Your task to perform on an android device: turn off sleep mode Image 0: 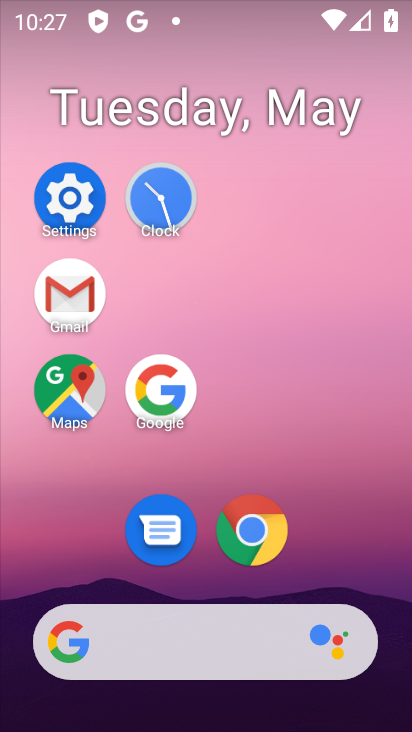
Step 0: click (91, 203)
Your task to perform on an android device: turn off sleep mode Image 1: 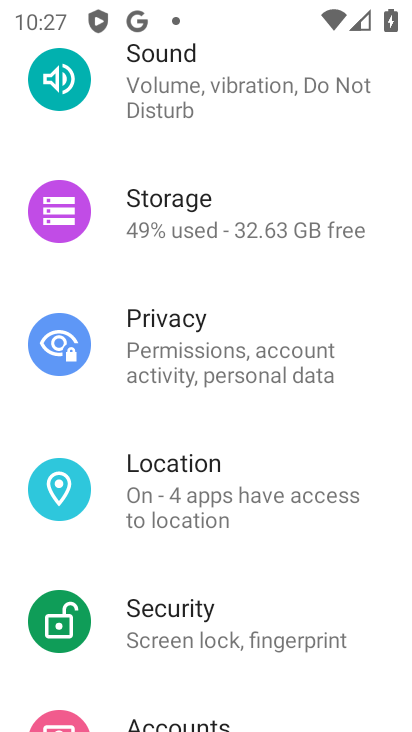
Step 1: drag from (269, 156) to (354, 549)
Your task to perform on an android device: turn off sleep mode Image 2: 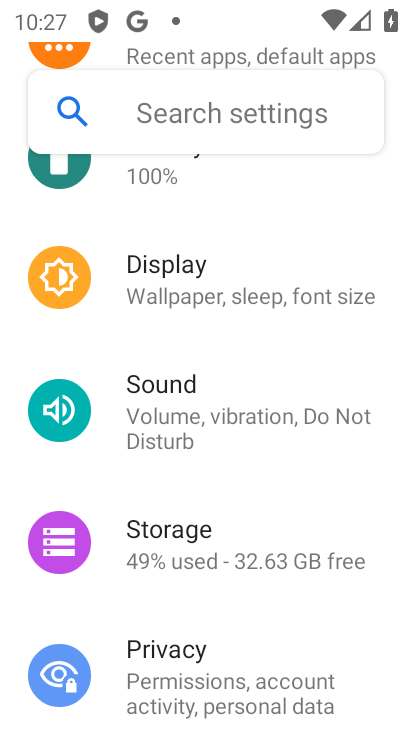
Step 2: click (254, 279)
Your task to perform on an android device: turn off sleep mode Image 3: 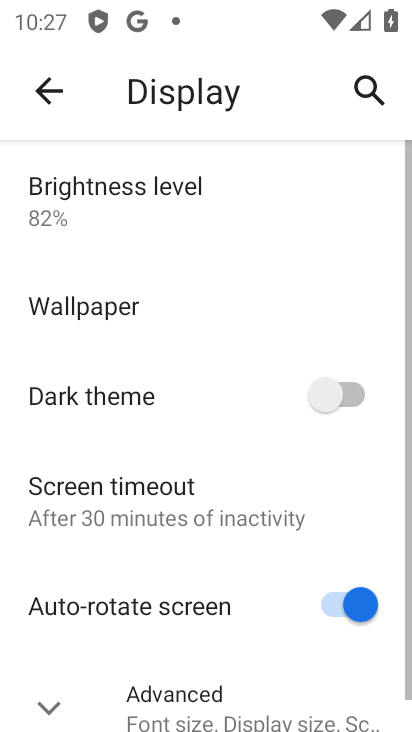
Step 3: click (223, 484)
Your task to perform on an android device: turn off sleep mode Image 4: 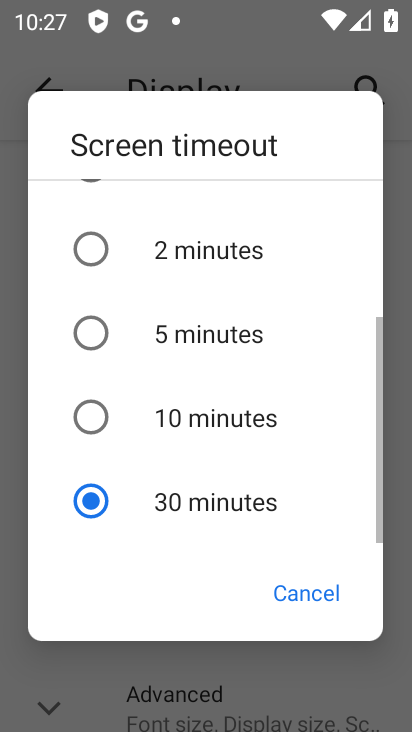
Step 4: task complete